Your task to perform on an android device: Search for sushi restaurants on Maps Image 0: 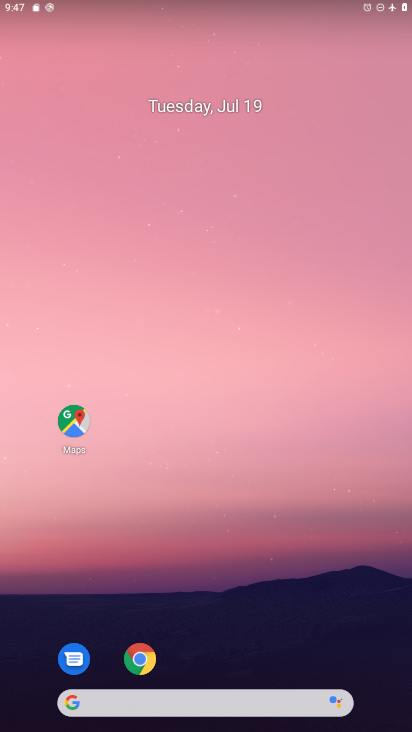
Step 0: drag from (290, 673) to (277, 219)
Your task to perform on an android device: Search for sushi restaurants on Maps Image 1: 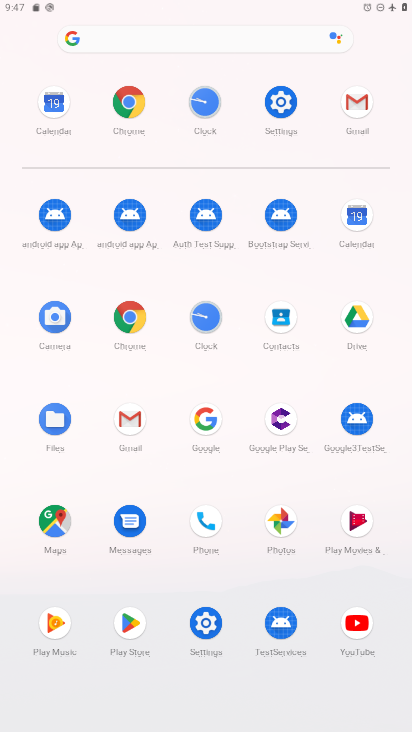
Step 1: click (51, 528)
Your task to perform on an android device: Search for sushi restaurants on Maps Image 2: 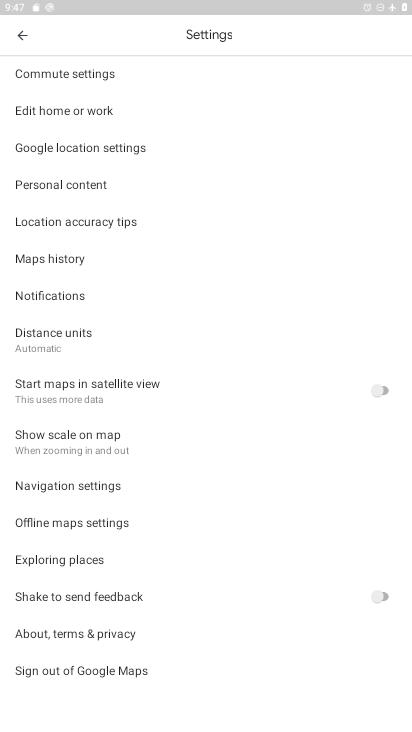
Step 2: click (15, 34)
Your task to perform on an android device: Search for sushi restaurants on Maps Image 3: 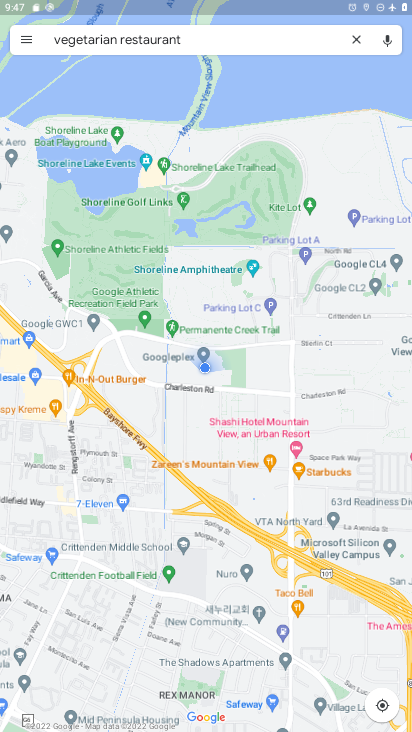
Step 3: click (96, 27)
Your task to perform on an android device: Search for sushi restaurants on Maps Image 4: 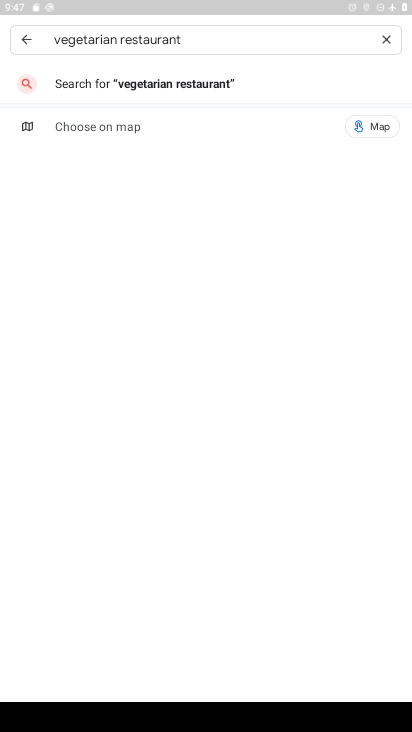
Step 4: type "sushi restaurants  "
Your task to perform on an android device: Search for sushi restaurants on Maps Image 5: 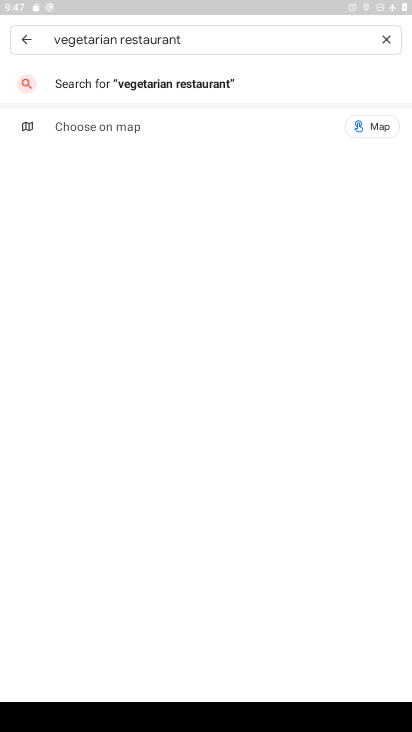
Step 5: click (22, 36)
Your task to perform on an android device: Search for sushi restaurants on Maps Image 6: 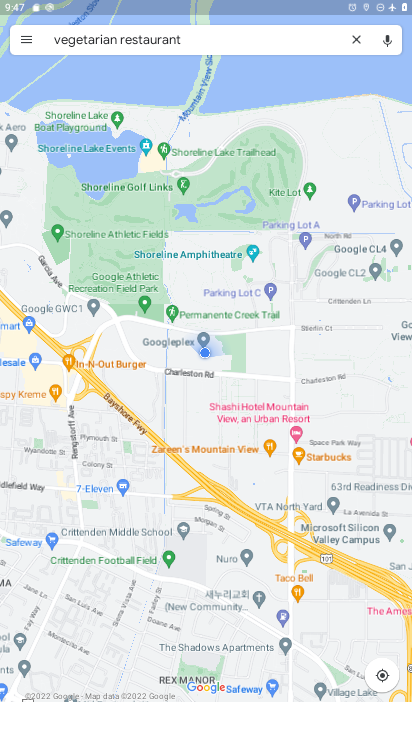
Step 6: click (389, 38)
Your task to perform on an android device: Search for sushi restaurants on Maps Image 7: 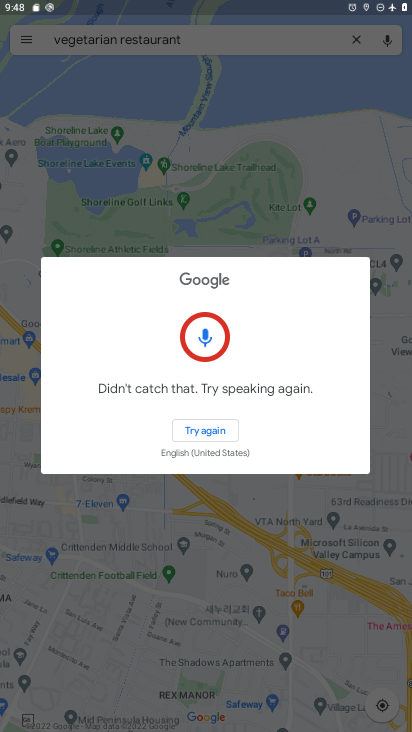
Step 7: click (223, 42)
Your task to perform on an android device: Search for sushi restaurants on Maps Image 8: 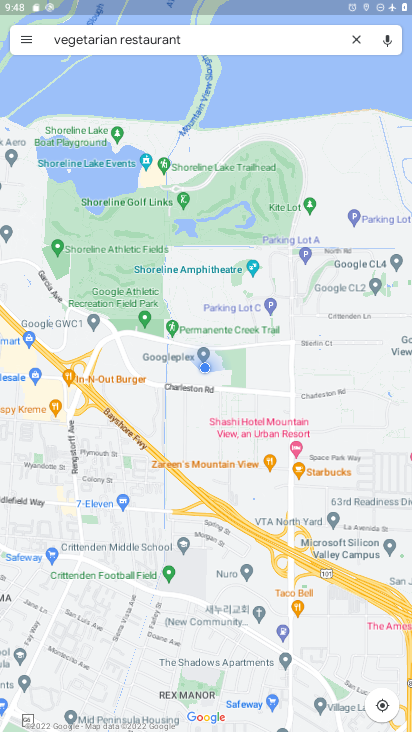
Step 8: click (360, 36)
Your task to perform on an android device: Search for sushi restaurants on Maps Image 9: 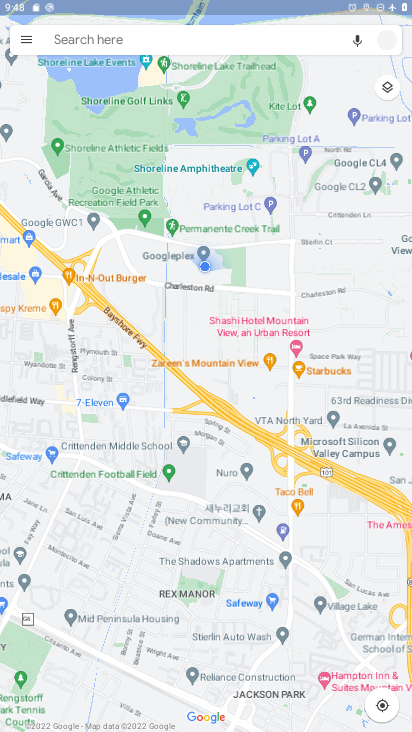
Step 9: click (234, 38)
Your task to perform on an android device: Search for sushi restaurants on Maps Image 10: 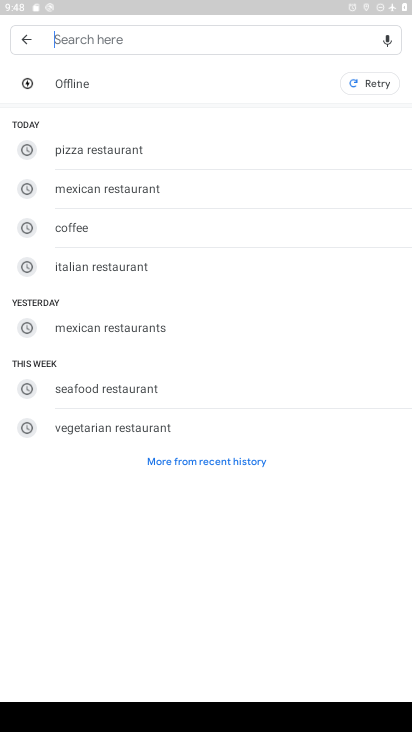
Step 10: type "sushi restaurants "
Your task to perform on an android device: Search for sushi restaurants on Maps Image 11: 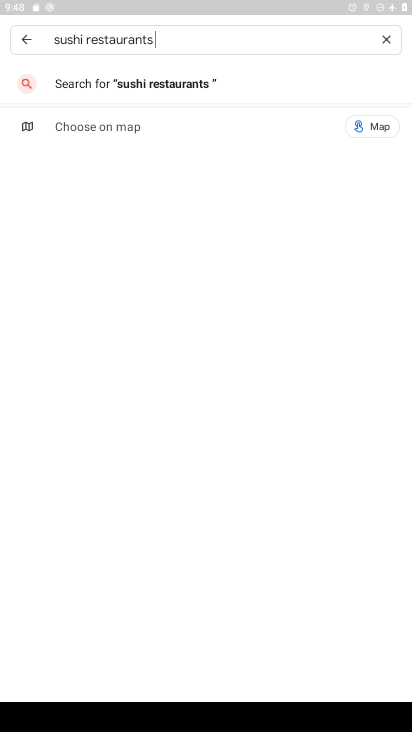
Step 11: click (163, 78)
Your task to perform on an android device: Search for sushi restaurants on Maps Image 12: 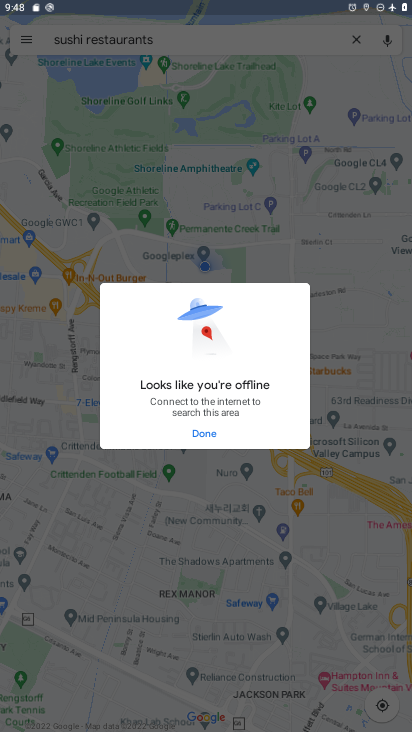
Step 12: task complete